Your task to perform on an android device: Search for Mexican restaurants on Maps Image 0: 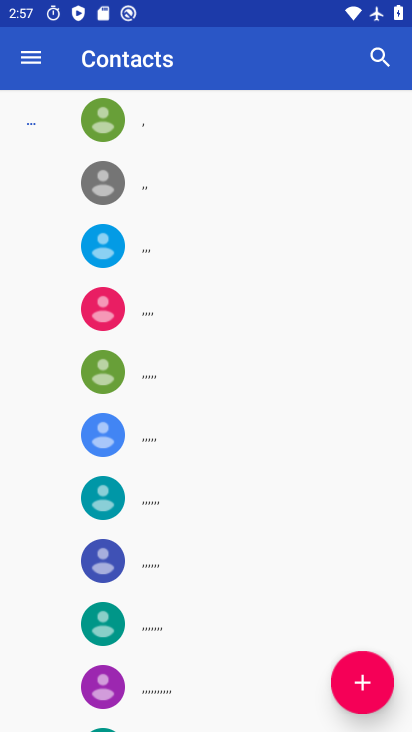
Step 0: press back button
Your task to perform on an android device: Search for Mexican restaurants on Maps Image 1: 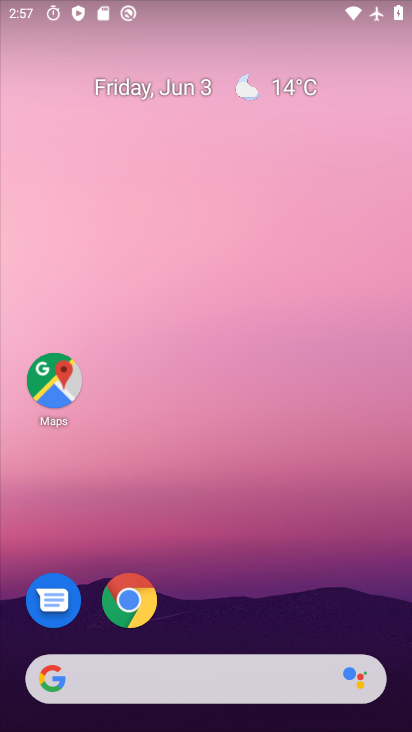
Step 1: drag from (229, 485) to (201, 34)
Your task to perform on an android device: Search for Mexican restaurants on Maps Image 2: 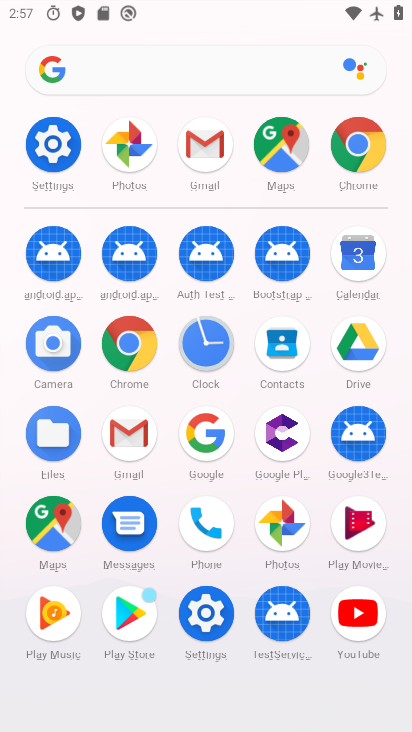
Step 2: click (280, 142)
Your task to perform on an android device: Search for Mexican restaurants on Maps Image 3: 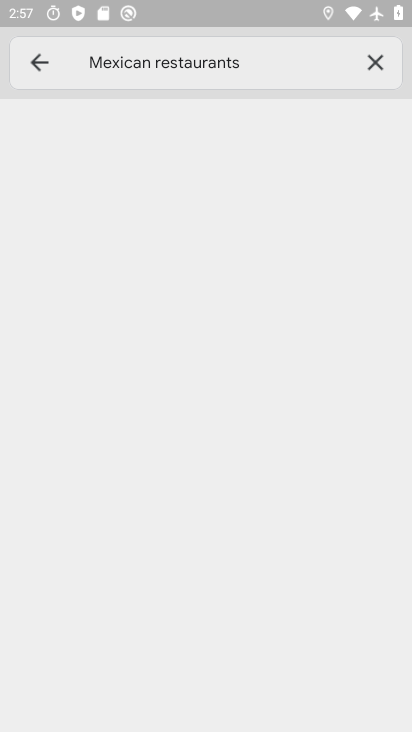
Step 3: click (382, 58)
Your task to perform on an android device: Search for Mexican restaurants on Maps Image 4: 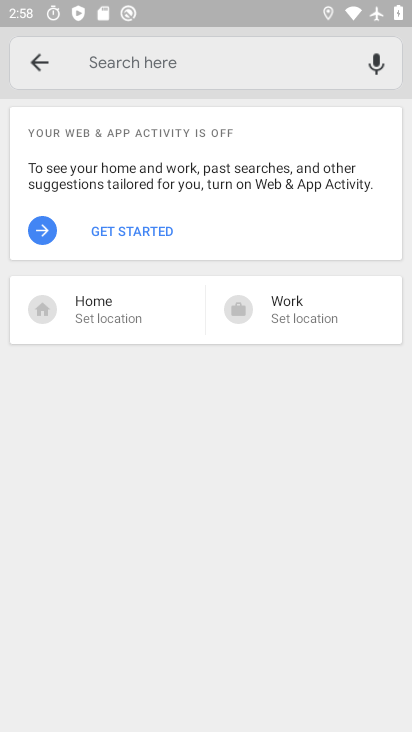
Step 4: click (29, 64)
Your task to perform on an android device: Search for Mexican restaurants on Maps Image 5: 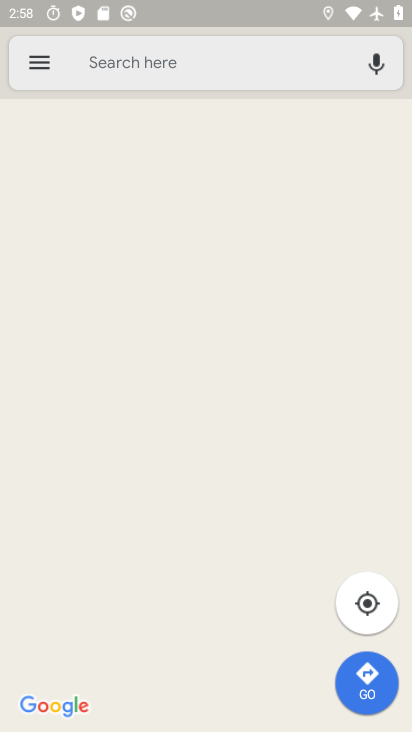
Step 5: click (38, 59)
Your task to perform on an android device: Search for Mexican restaurants on Maps Image 6: 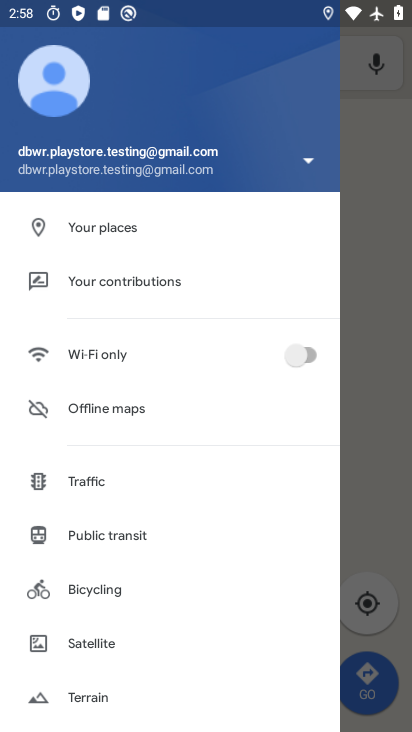
Step 6: click (149, 223)
Your task to perform on an android device: Search for Mexican restaurants on Maps Image 7: 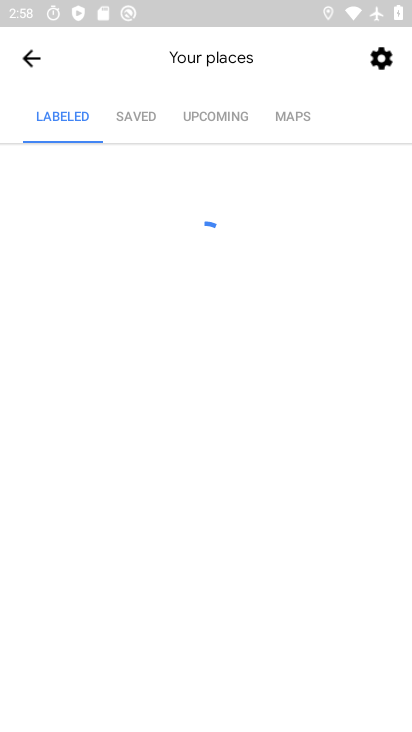
Step 7: click (35, 58)
Your task to perform on an android device: Search for Mexican restaurants on Maps Image 8: 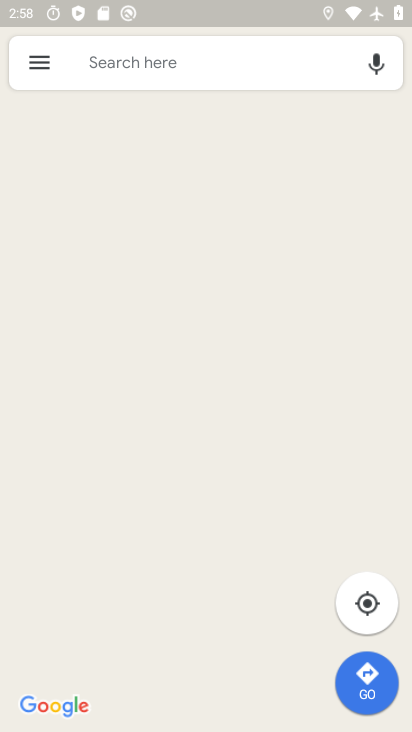
Step 8: click (206, 62)
Your task to perform on an android device: Search for Mexican restaurants on Maps Image 9: 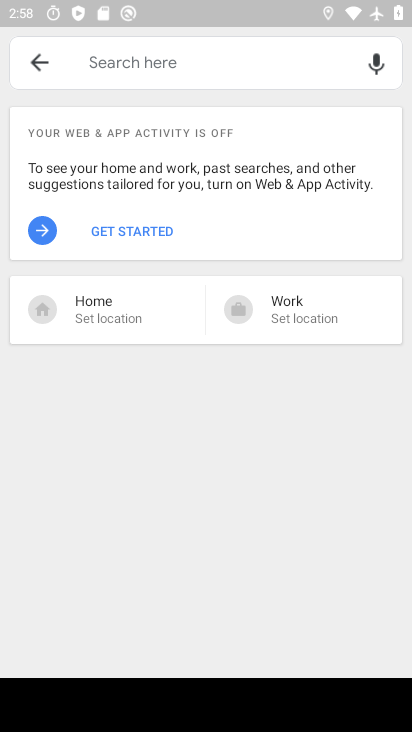
Step 9: type " Mexican restaurants"
Your task to perform on an android device: Search for Mexican restaurants on Maps Image 10: 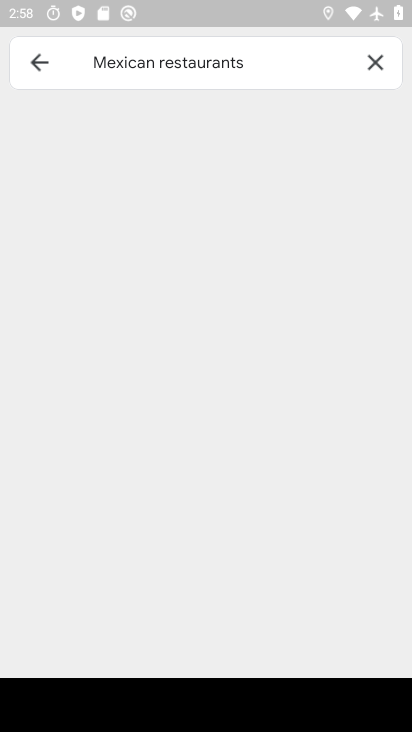
Step 10: click (245, 63)
Your task to perform on an android device: Search for Mexican restaurants on Maps Image 11: 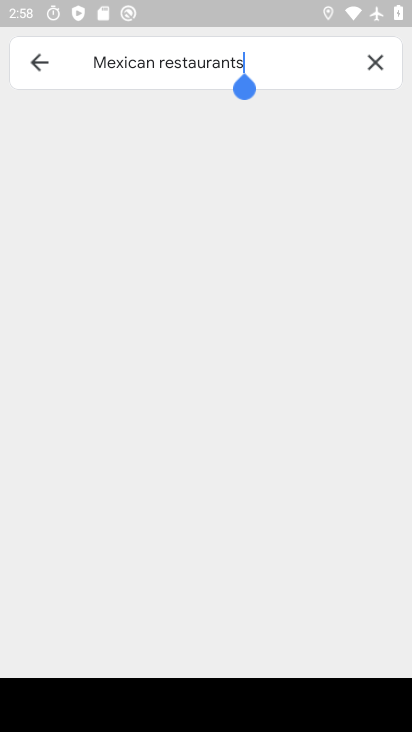
Step 11: task complete